Your task to perform on an android device: Go to calendar. Show me events next week Image 0: 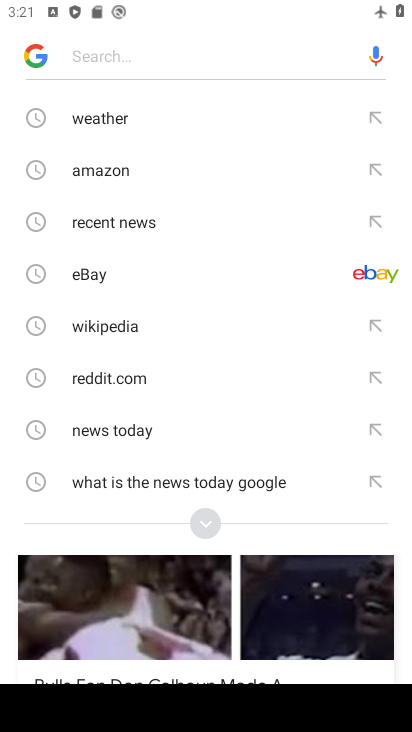
Step 0: press home button
Your task to perform on an android device: Go to calendar. Show me events next week Image 1: 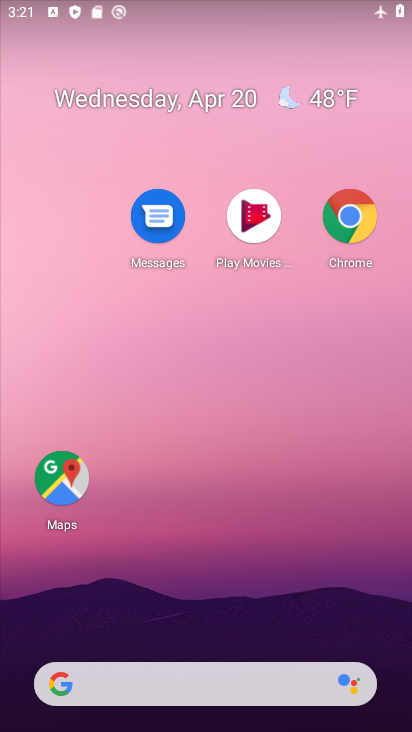
Step 1: drag from (196, 520) to (272, 6)
Your task to perform on an android device: Go to calendar. Show me events next week Image 2: 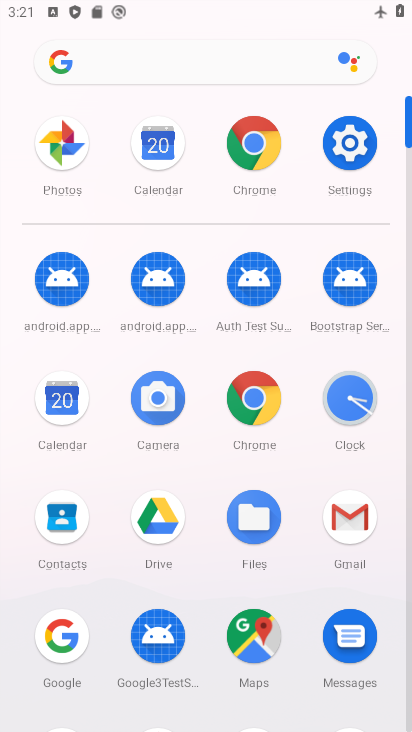
Step 2: click (169, 165)
Your task to perform on an android device: Go to calendar. Show me events next week Image 3: 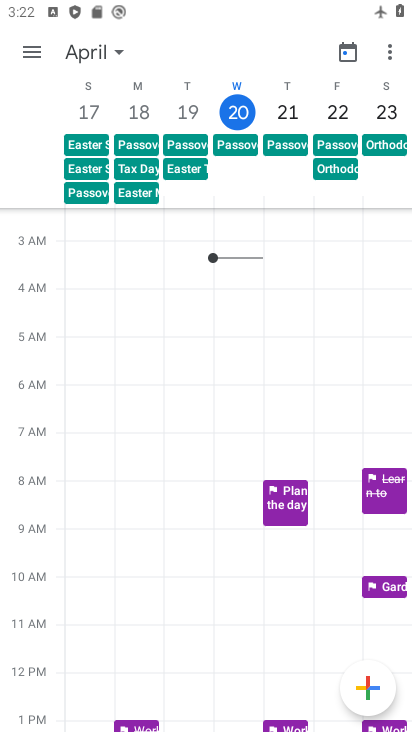
Step 3: task complete